Your task to perform on an android device: choose inbox layout in the gmail app Image 0: 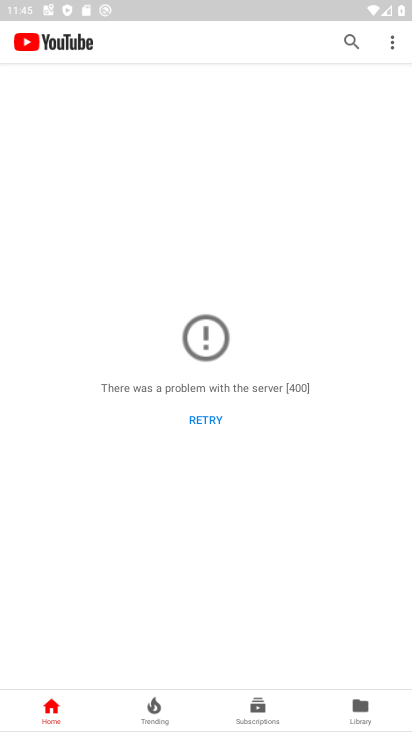
Step 0: press home button
Your task to perform on an android device: choose inbox layout in the gmail app Image 1: 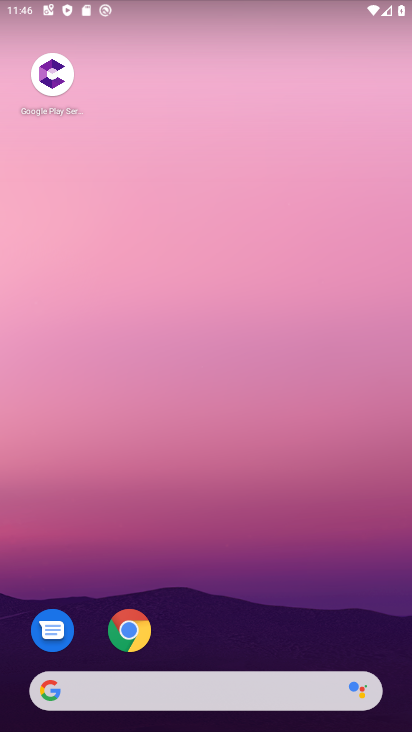
Step 1: drag from (223, 542) to (197, 23)
Your task to perform on an android device: choose inbox layout in the gmail app Image 2: 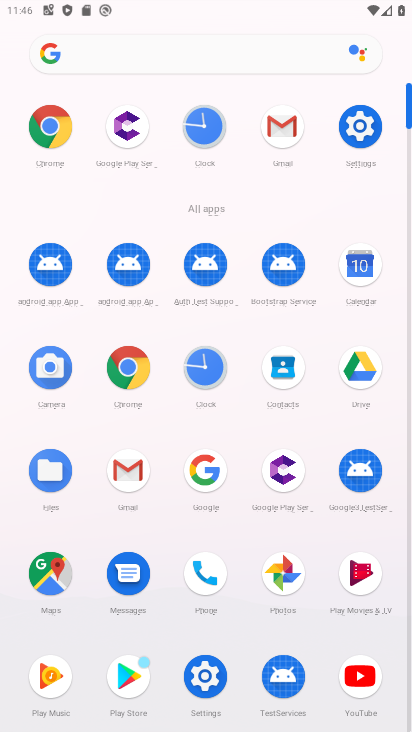
Step 2: click (271, 121)
Your task to perform on an android device: choose inbox layout in the gmail app Image 3: 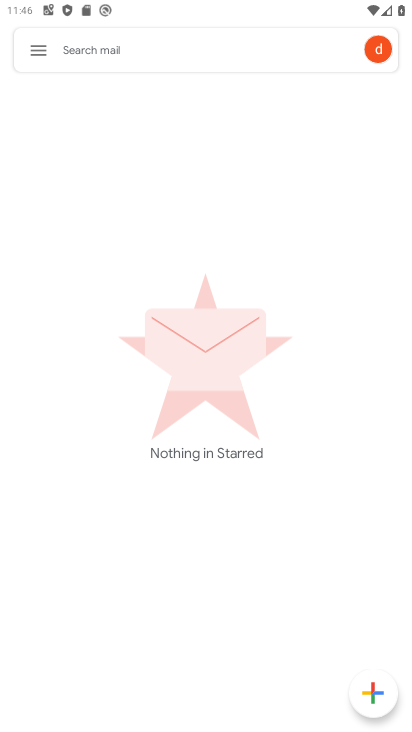
Step 3: click (41, 49)
Your task to perform on an android device: choose inbox layout in the gmail app Image 4: 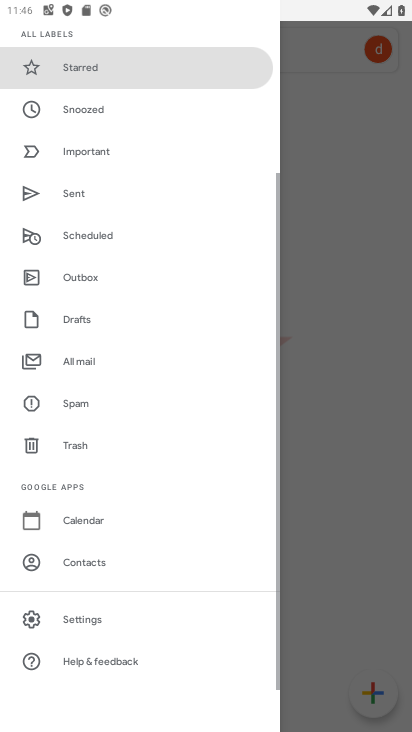
Step 4: drag from (166, 621) to (171, 316)
Your task to perform on an android device: choose inbox layout in the gmail app Image 5: 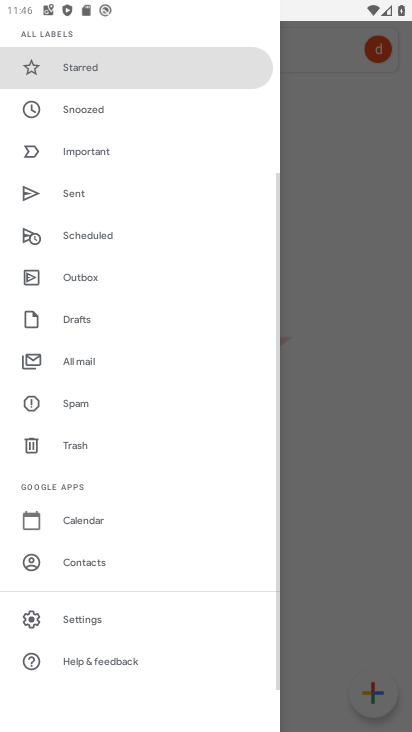
Step 5: click (81, 617)
Your task to perform on an android device: choose inbox layout in the gmail app Image 6: 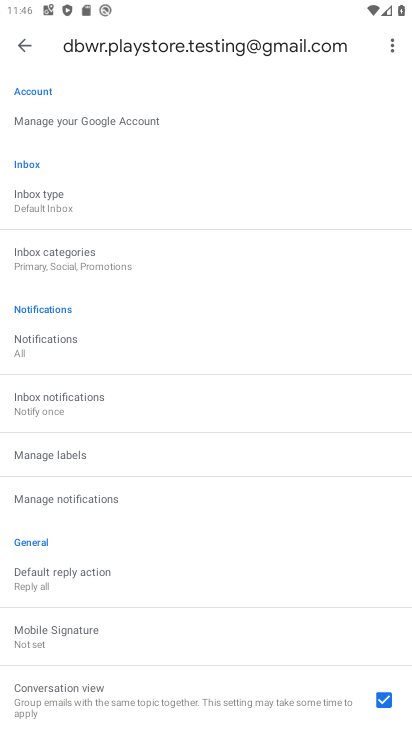
Step 6: click (57, 202)
Your task to perform on an android device: choose inbox layout in the gmail app Image 7: 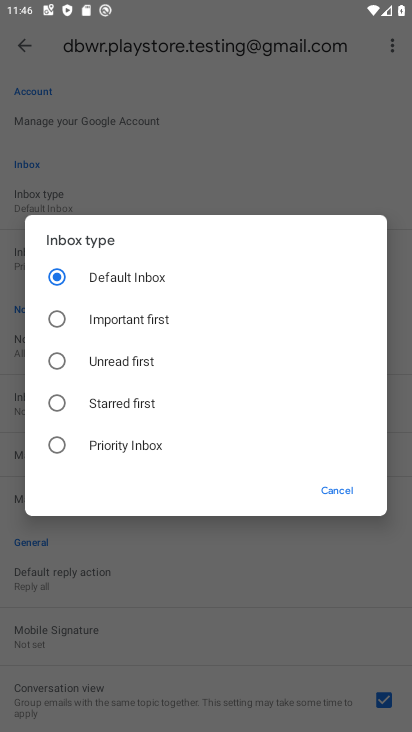
Step 7: task complete